Your task to perform on an android device: What's the weather? Image 0: 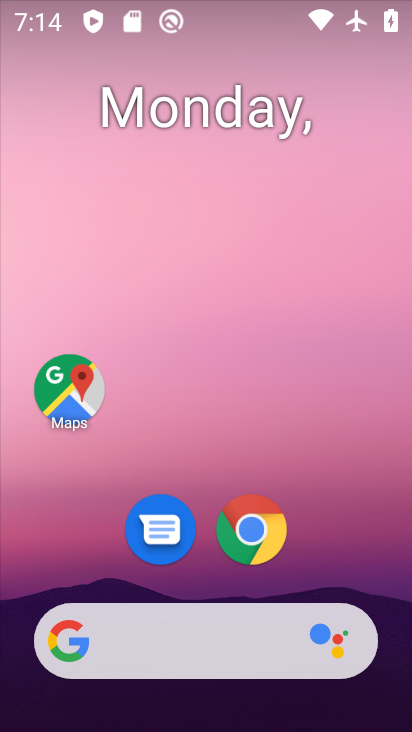
Step 0: click (207, 655)
Your task to perform on an android device: What's the weather? Image 1: 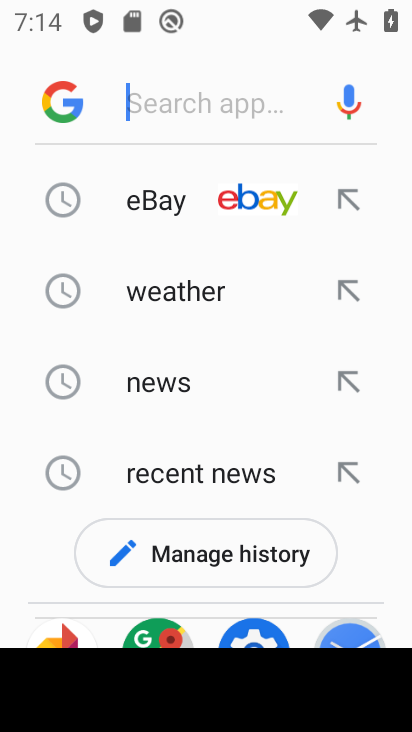
Step 1: click (142, 296)
Your task to perform on an android device: What's the weather? Image 2: 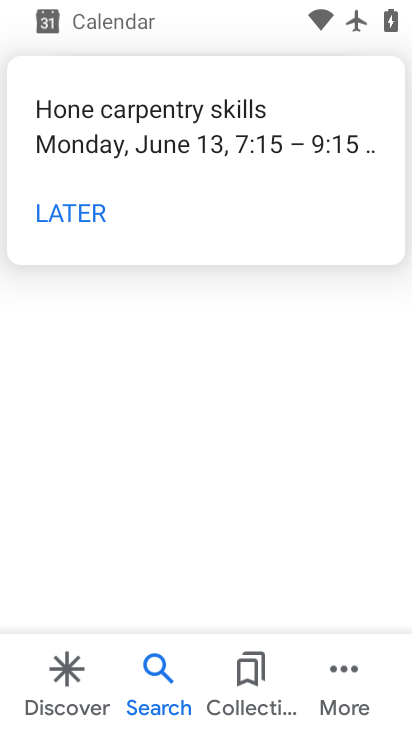
Step 2: click (84, 212)
Your task to perform on an android device: What's the weather? Image 3: 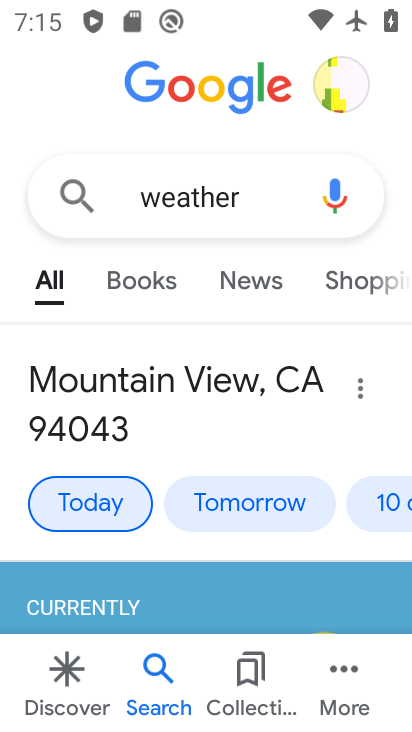
Step 3: task complete